Your task to perform on an android device: Search for vegetarian restaurants on Maps Image 0: 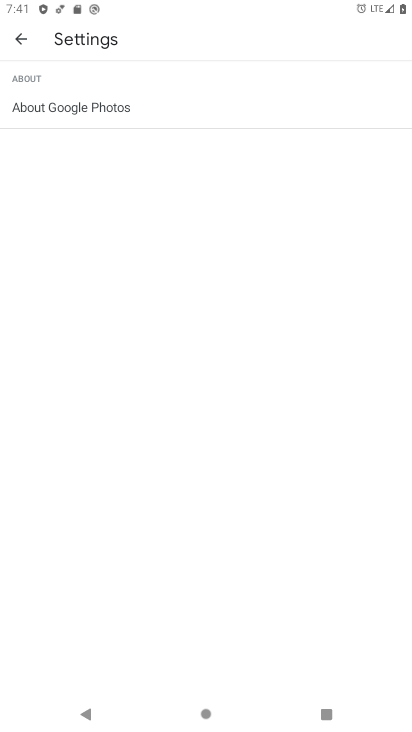
Step 0: press home button
Your task to perform on an android device: Search for vegetarian restaurants on Maps Image 1: 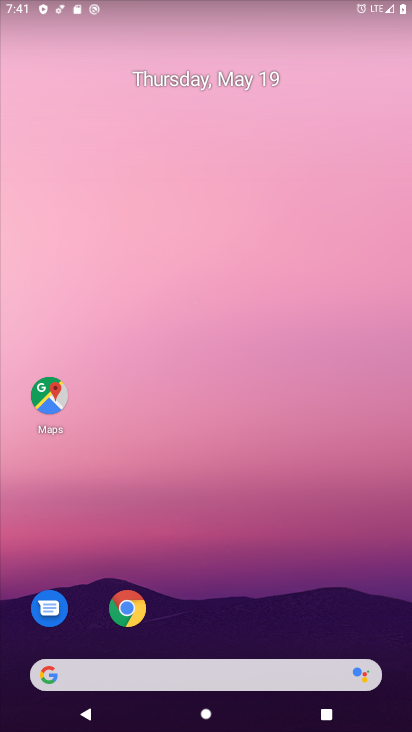
Step 1: click (36, 394)
Your task to perform on an android device: Search for vegetarian restaurants on Maps Image 2: 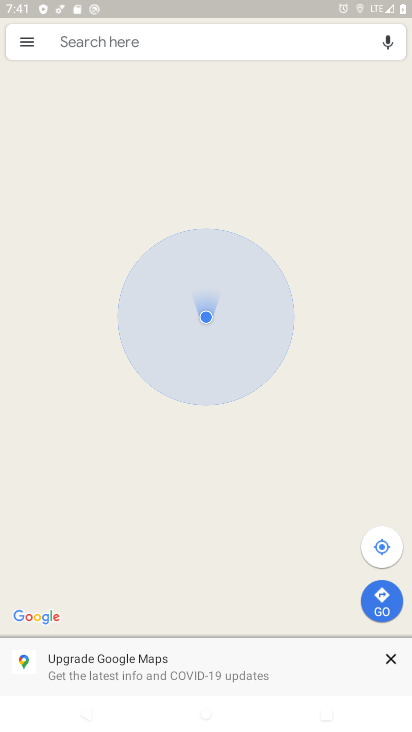
Step 2: click (152, 50)
Your task to perform on an android device: Search for vegetarian restaurants on Maps Image 3: 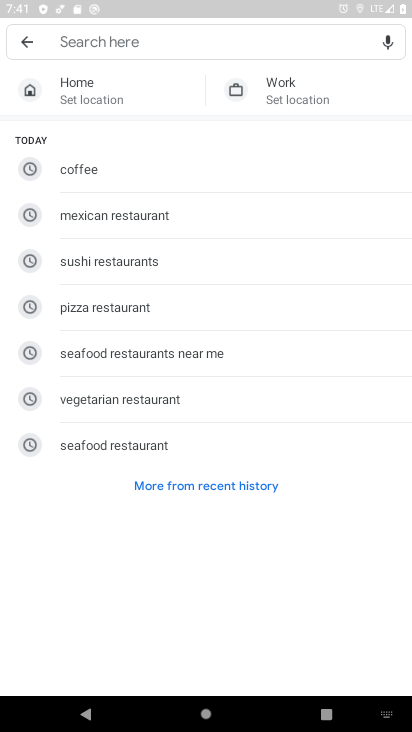
Step 3: type " vegetarian restaurants"
Your task to perform on an android device: Search for vegetarian restaurants on Maps Image 4: 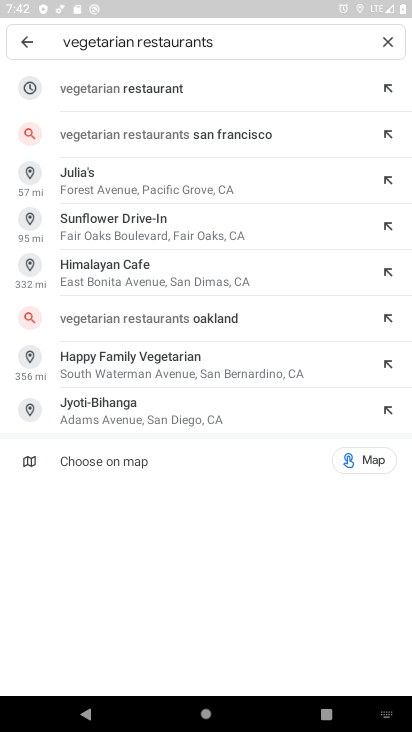
Step 4: click (141, 84)
Your task to perform on an android device: Search for vegetarian restaurants on Maps Image 5: 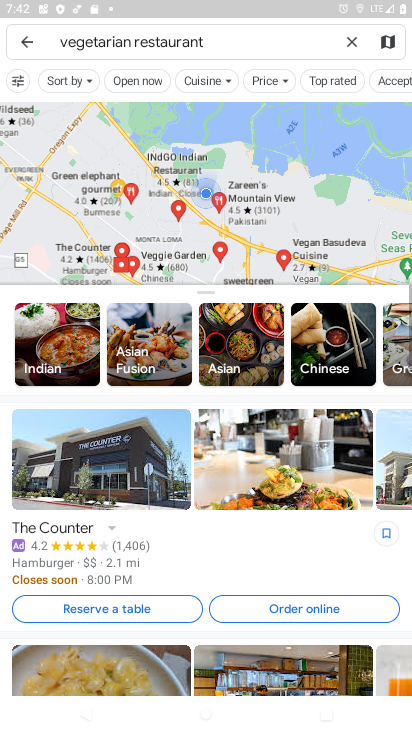
Step 5: task complete